Your task to perform on an android device: turn off wifi Image 0: 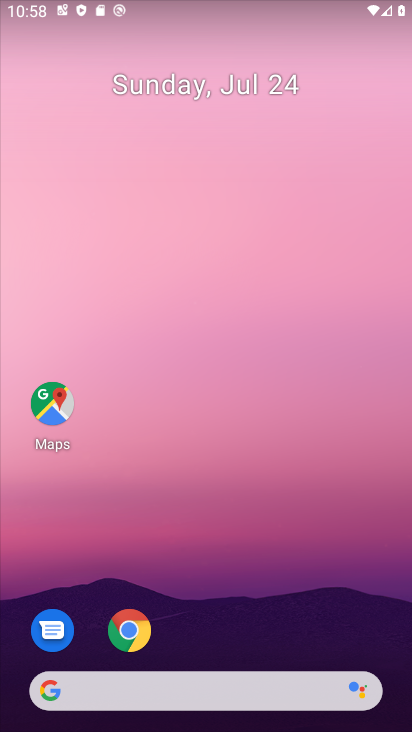
Step 0: drag from (205, 643) to (177, 172)
Your task to perform on an android device: turn off wifi Image 1: 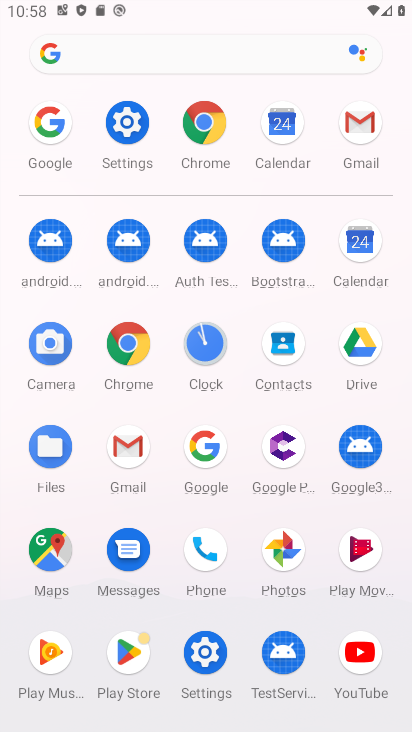
Step 1: click (134, 149)
Your task to perform on an android device: turn off wifi Image 2: 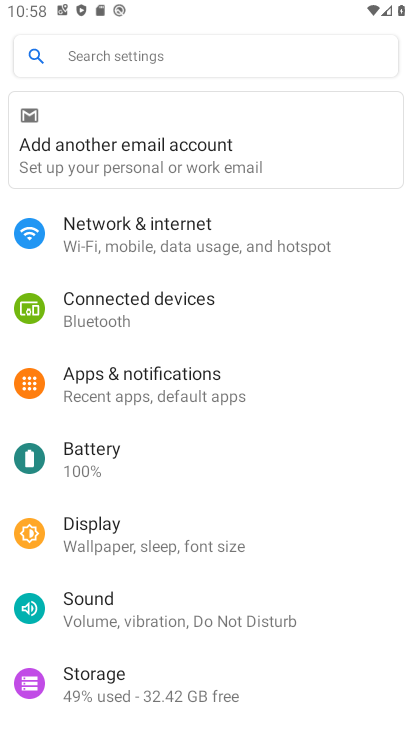
Step 2: click (161, 223)
Your task to perform on an android device: turn off wifi Image 3: 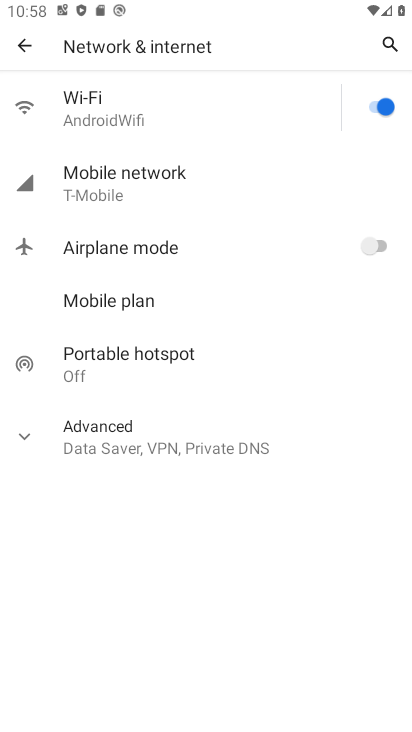
Step 3: click (357, 124)
Your task to perform on an android device: turn off wifi Image 4: 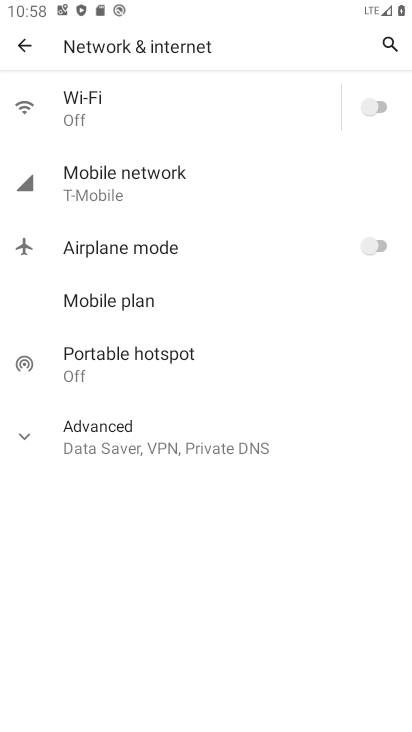
Step 4: task complete